Your task to perform on an android device: turn off sleep mode Image 0: 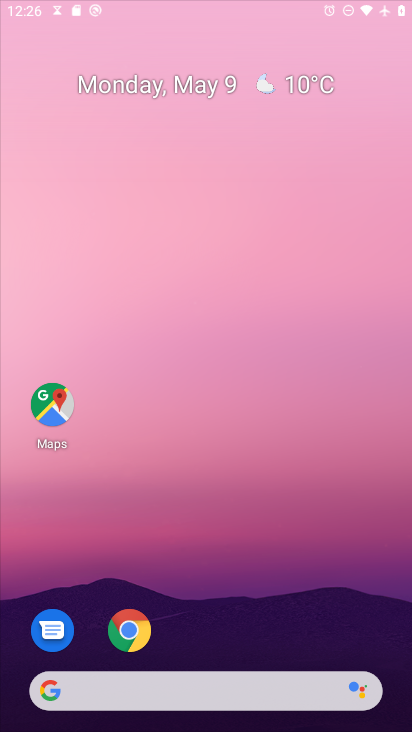
Step 0: press home button
Your task to perform on an android device: turn off sleep mode Image 1: 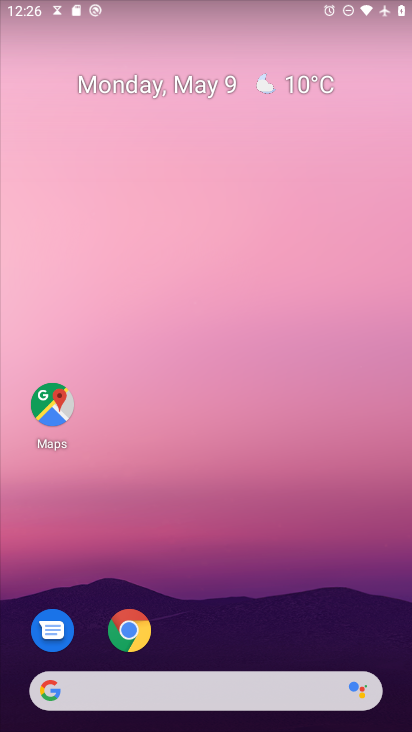
Step 1: drag from (211, 703) to (396, 70)
Your task to perform on an android device: turn off sleep mode Image 2: 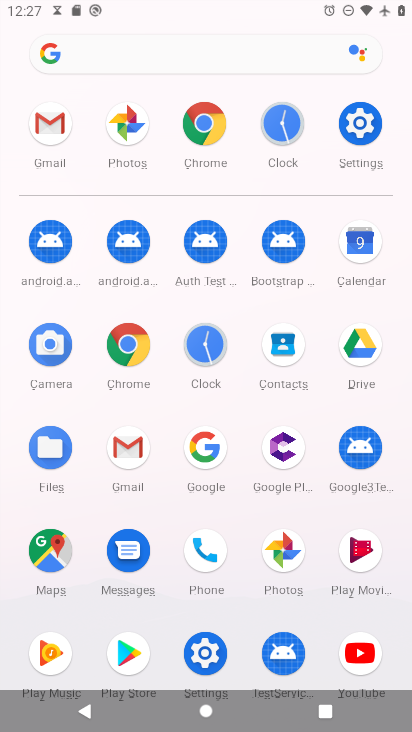
Step 2: click (353, 113)
Your task to perform on an android device: turn off sleep mode Image 3: 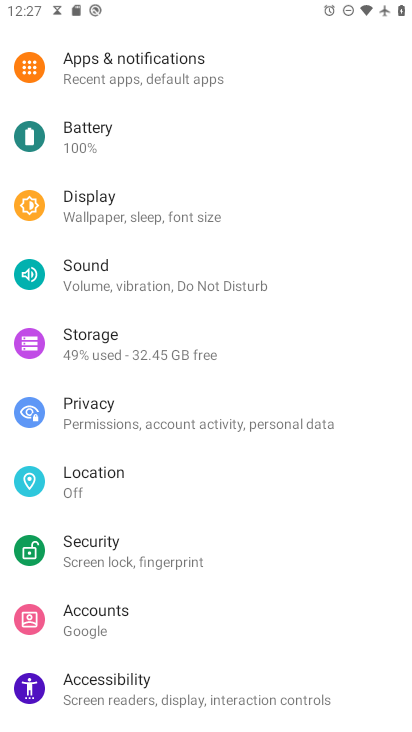
Step 3: click (204, 225)
Your task to perform on an android device: turn off sleep mode Image 4: 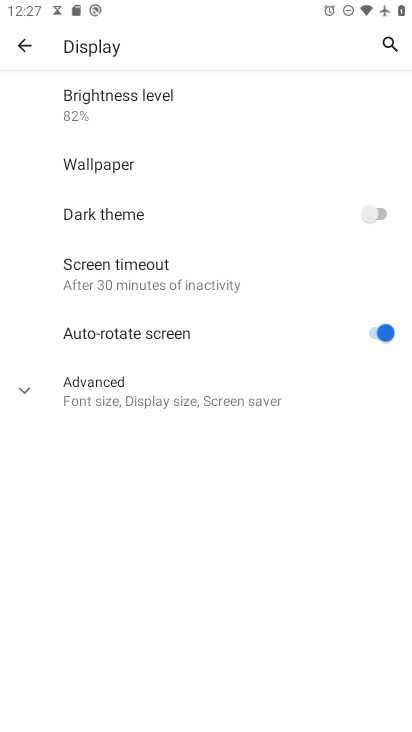
Step 4: task complete